Your task to perform on an android device: Show me recent news Image 0: 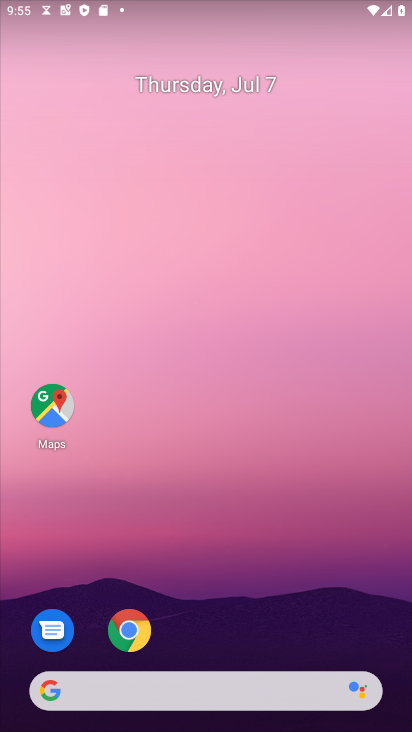
Step 0: drag from (215, 664) to (245, 308)
Your task to perform on an android device: Show me recent news Image 1: 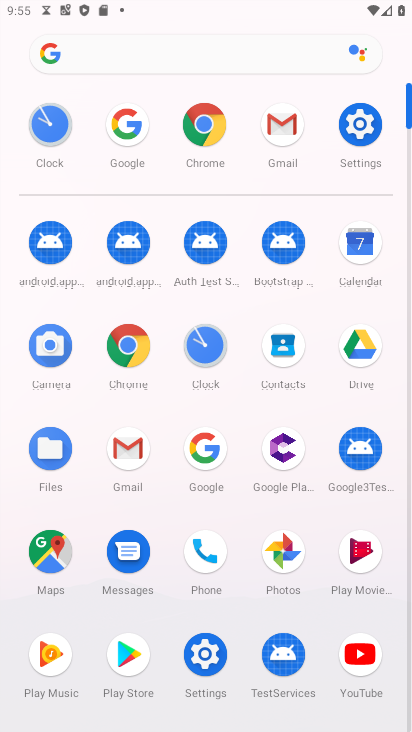
Step 1: click (131, 127)
Your task to perform on an android device: Show me recent news Image 2: 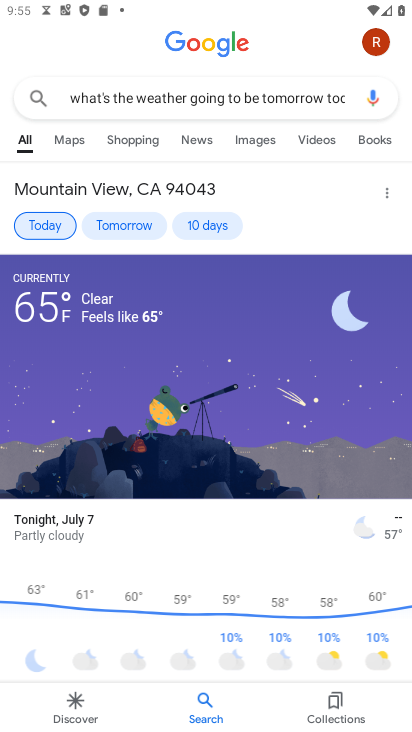
Step 2: click (320, 94)
Your task to perform on an android device: Show me recent news Image 3: 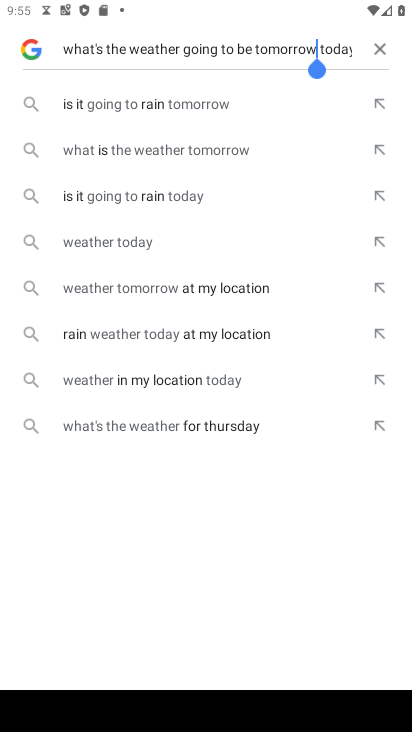
Step 3: click (382, 51)
Your task to perform on an android device: Show me recent news Image 4: 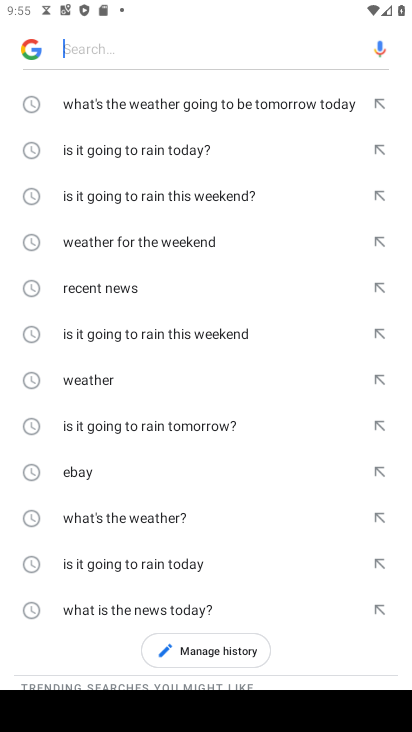
Step 4: click (126, 283)
Your task to perform on an android device: Show me recent news Image 5: 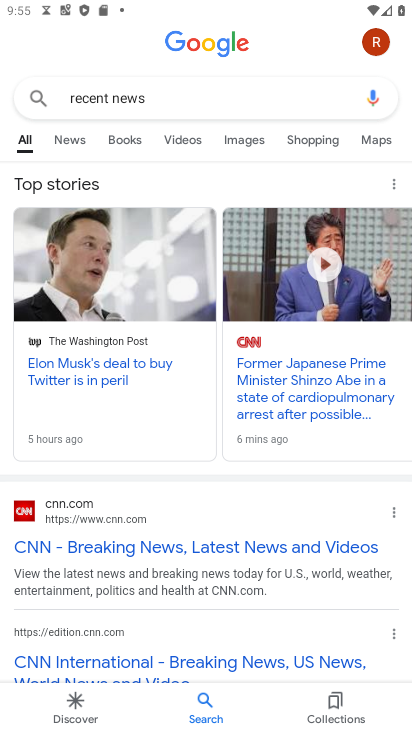
Step 5: task complete